Your task to perform on an android device: turn notification dots off Image 0: 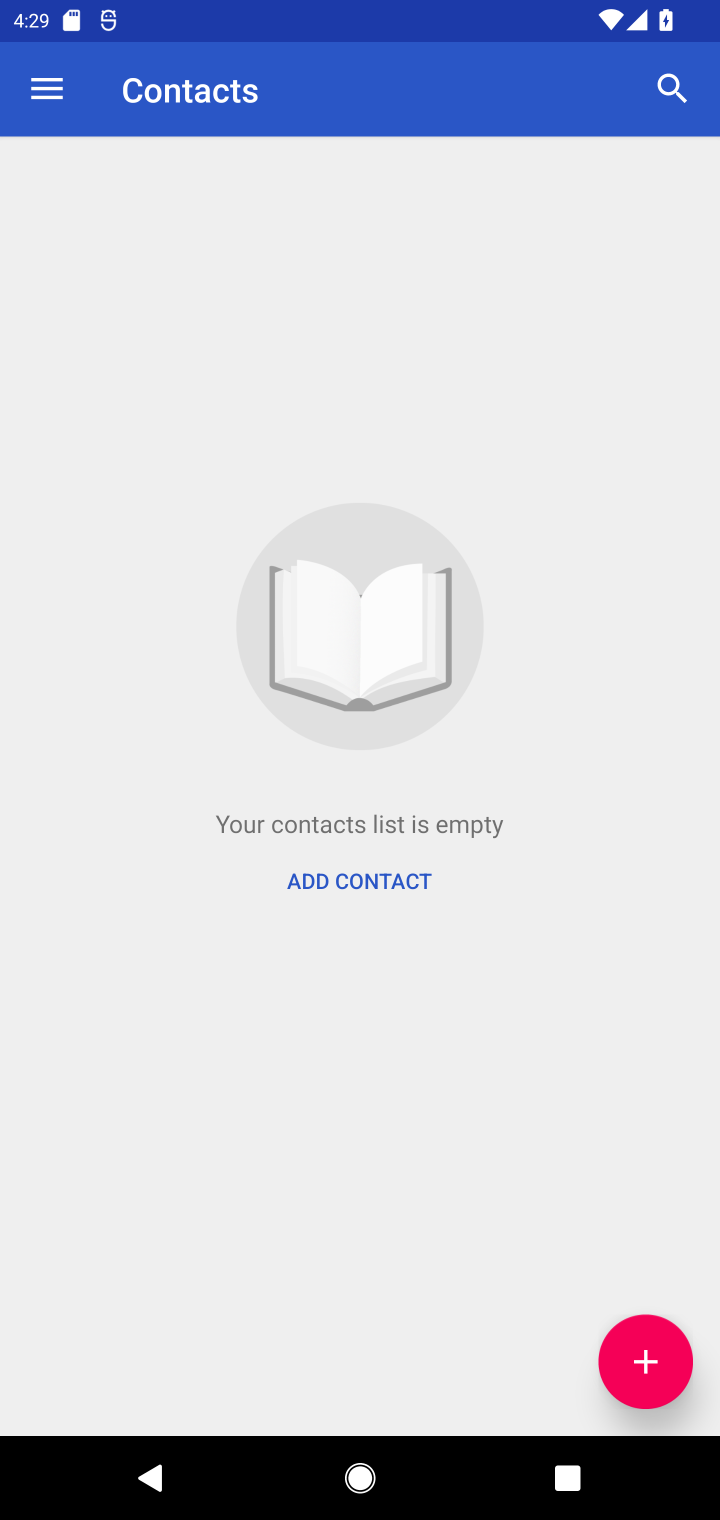
Step 0: press home button
Your task to perform on an android device: turn notification dots off Image 1: 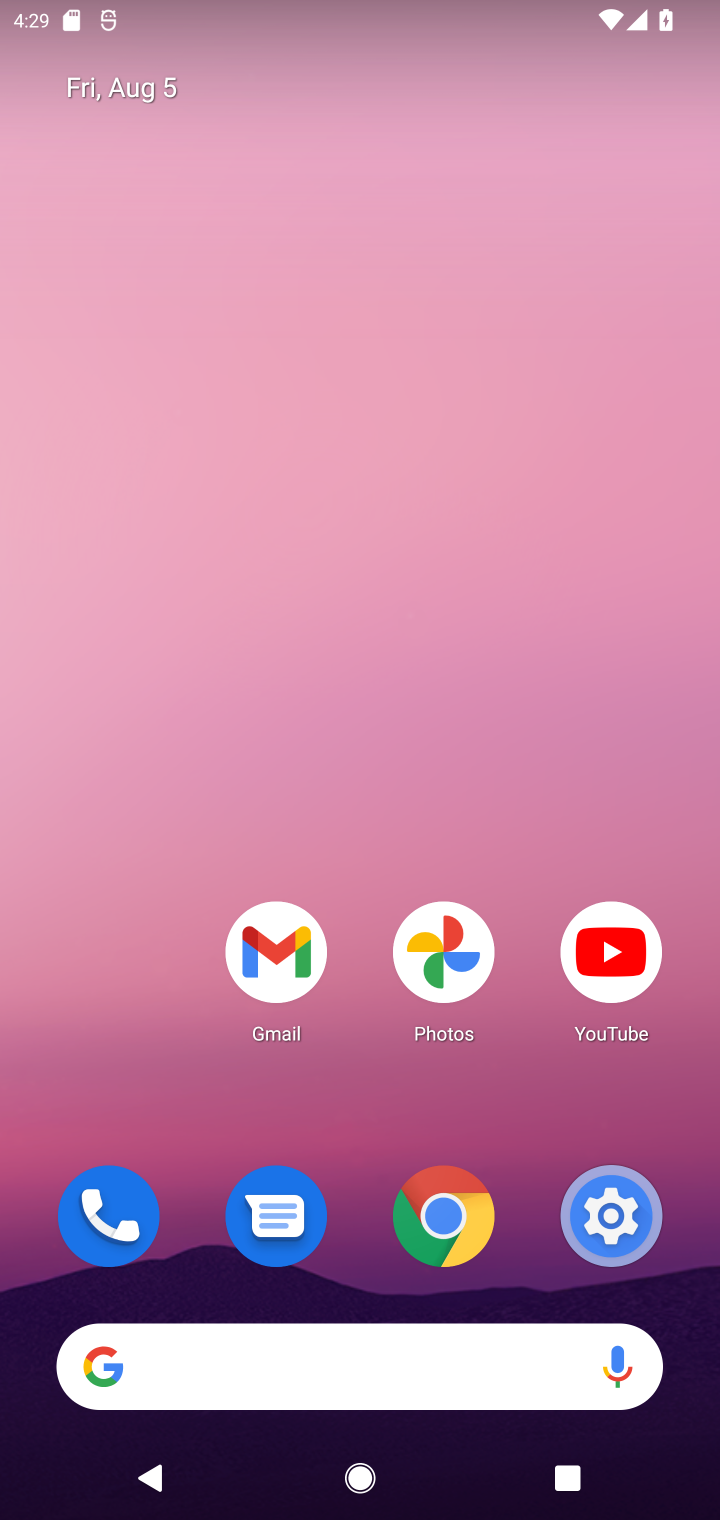
Step 1: click (632, 1231)
Your task to perform on an android device: turn notification dots off Image 2: 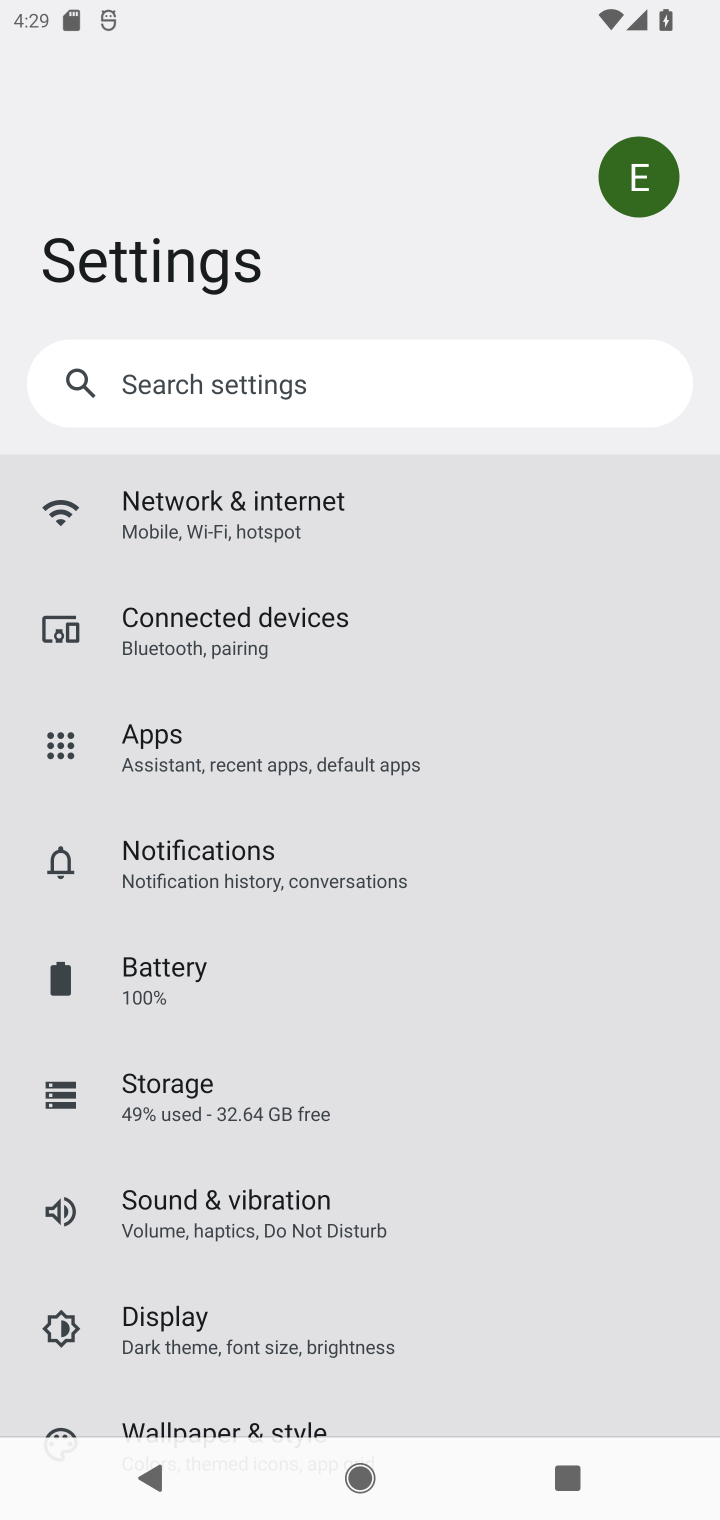
Step 2: click (206, 857)
Your task to perform on an android device: turn notification dots off Image 3: 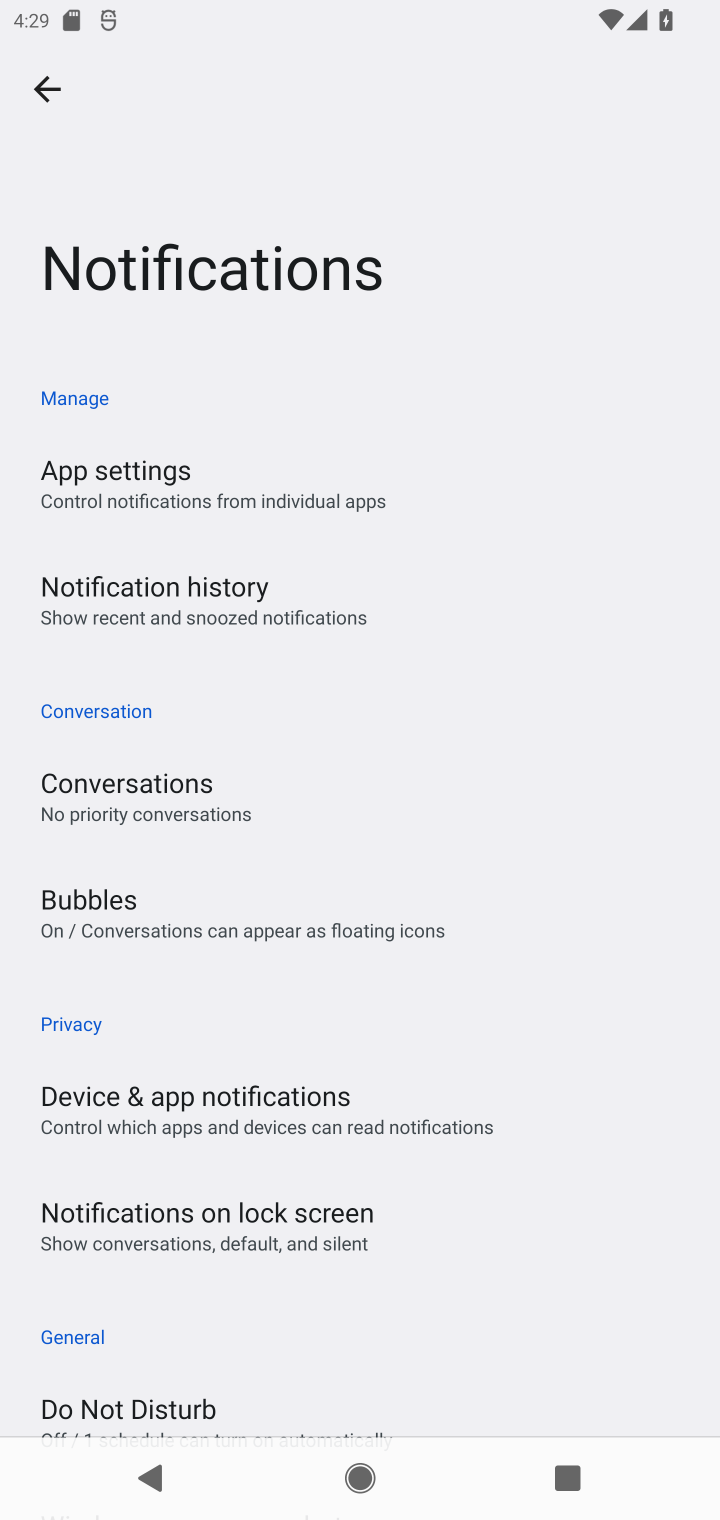
Step 3: drag from (490, 1263) to (418, 629)
Your task to perform on an android device: turn notification dots off Image 4: 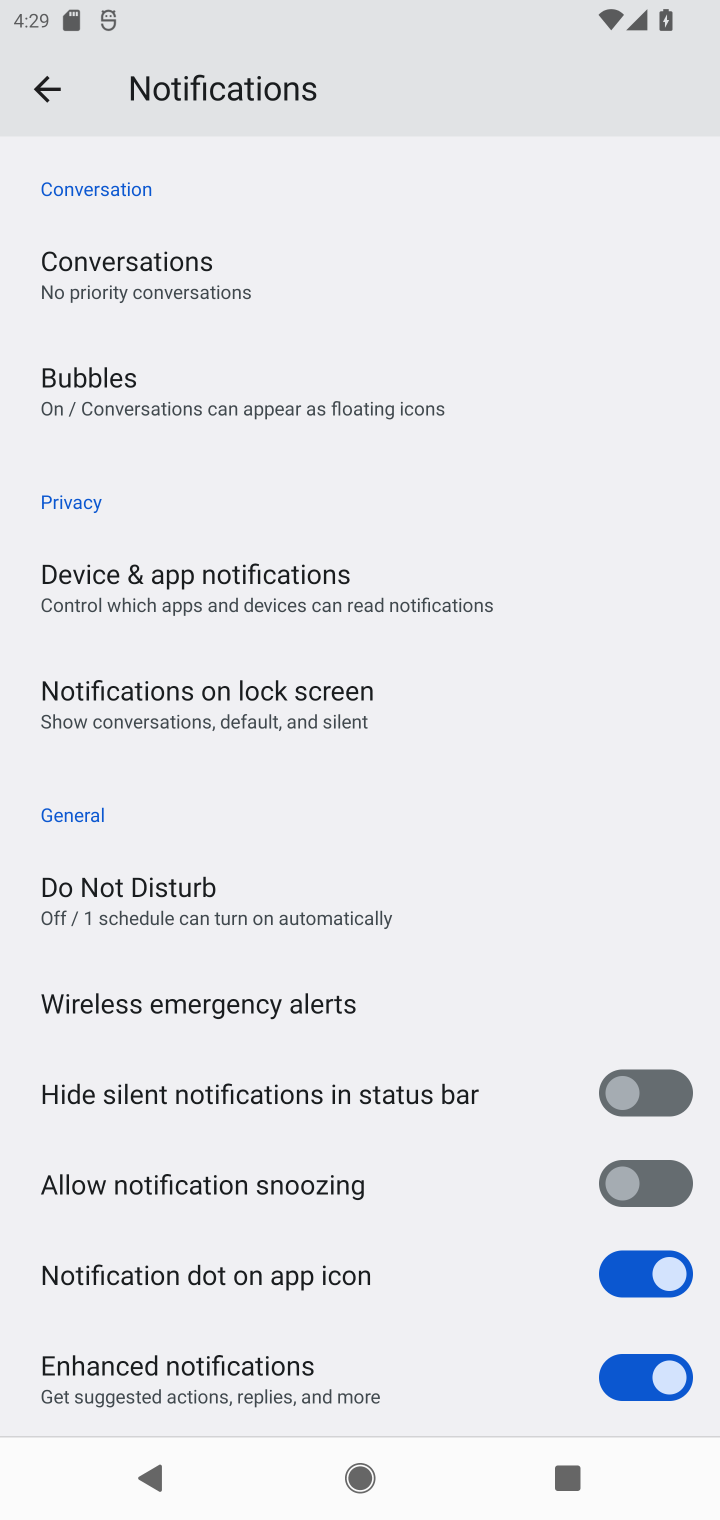
Step 4: click (668, 1275)
Your task to perform on an android device: turn notification dots off Image 5: 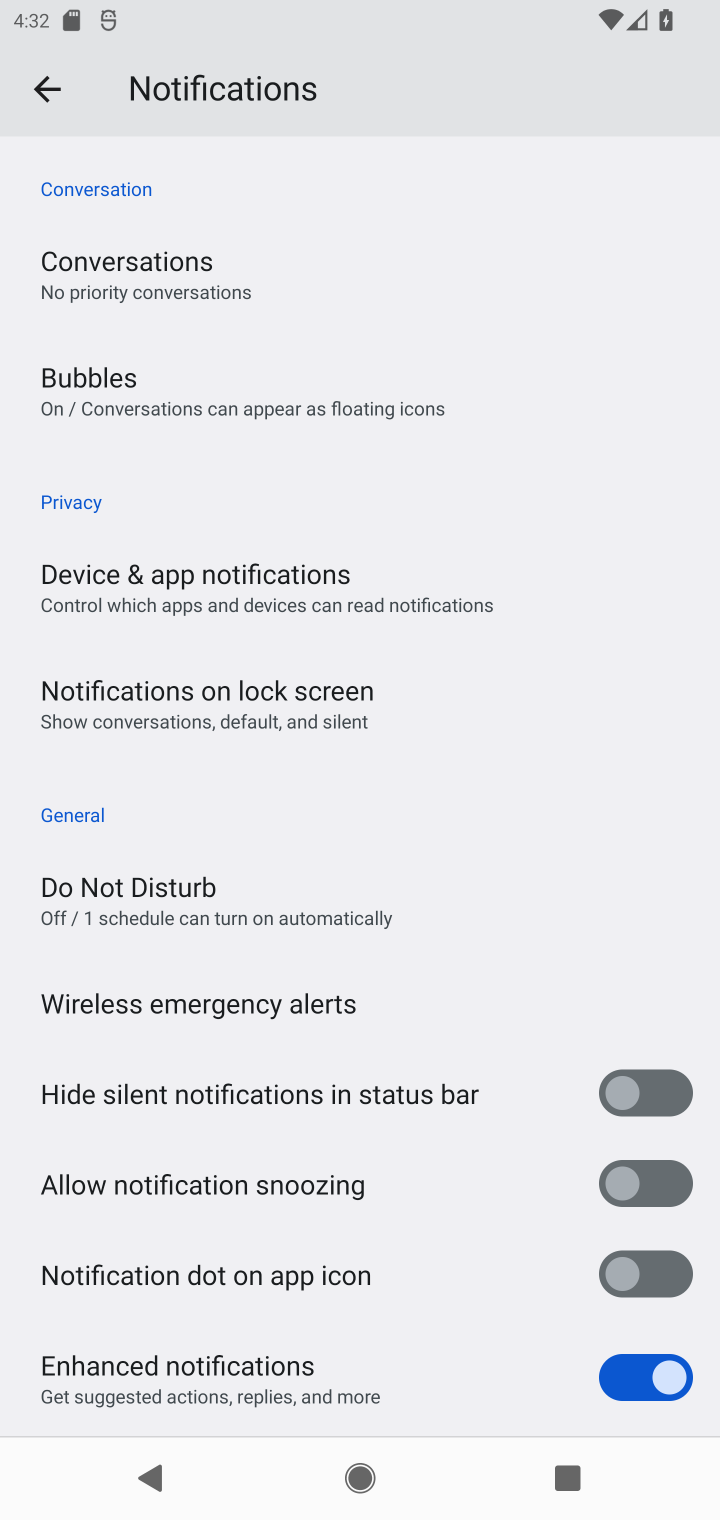
Step 5: task complete